Your task to perform on an android device: Show the shopping cart on target. Add "logitech g903" to the cart on target, then select checkout. Image 0: 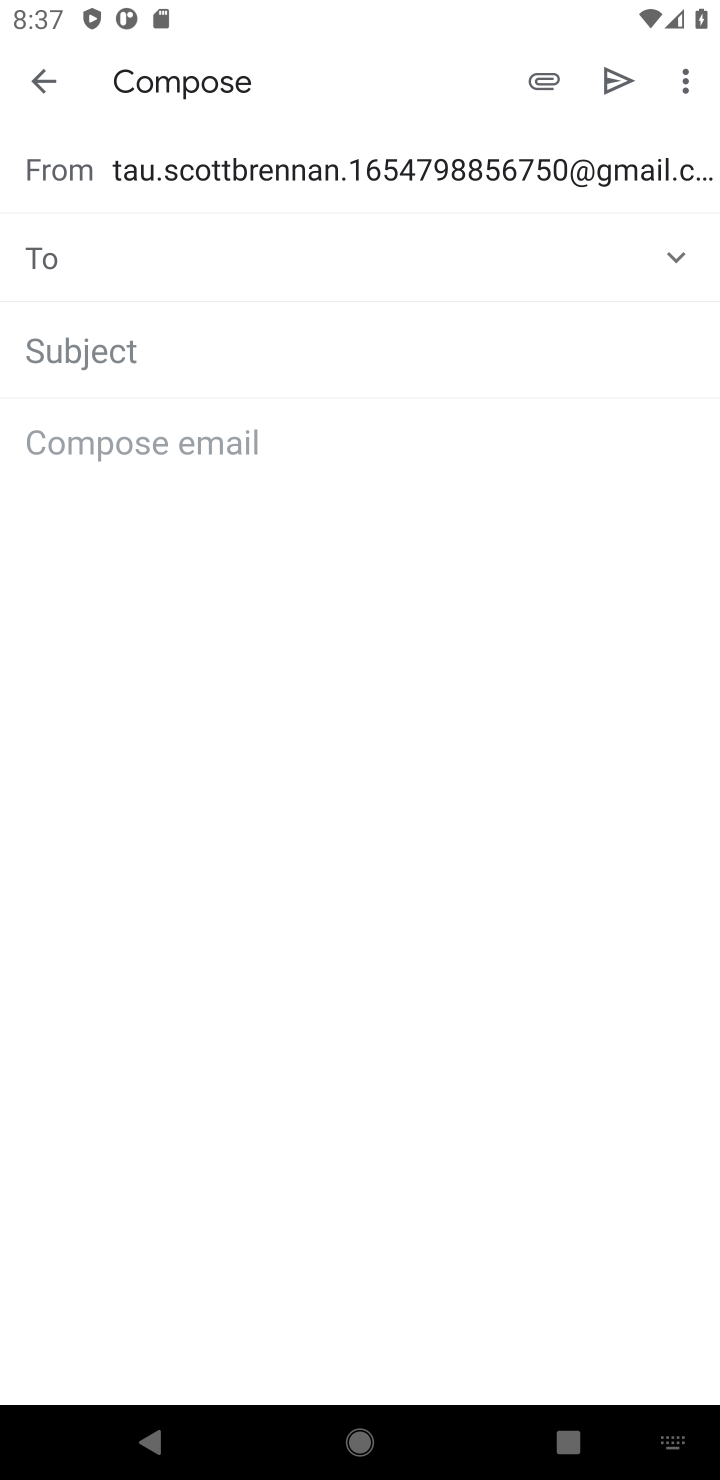
Step 0: press home button
Your task to perform on an android device: Show the shopping cart on target. Add "logitech g903" to the cart on target, then select checkout. Image 1: 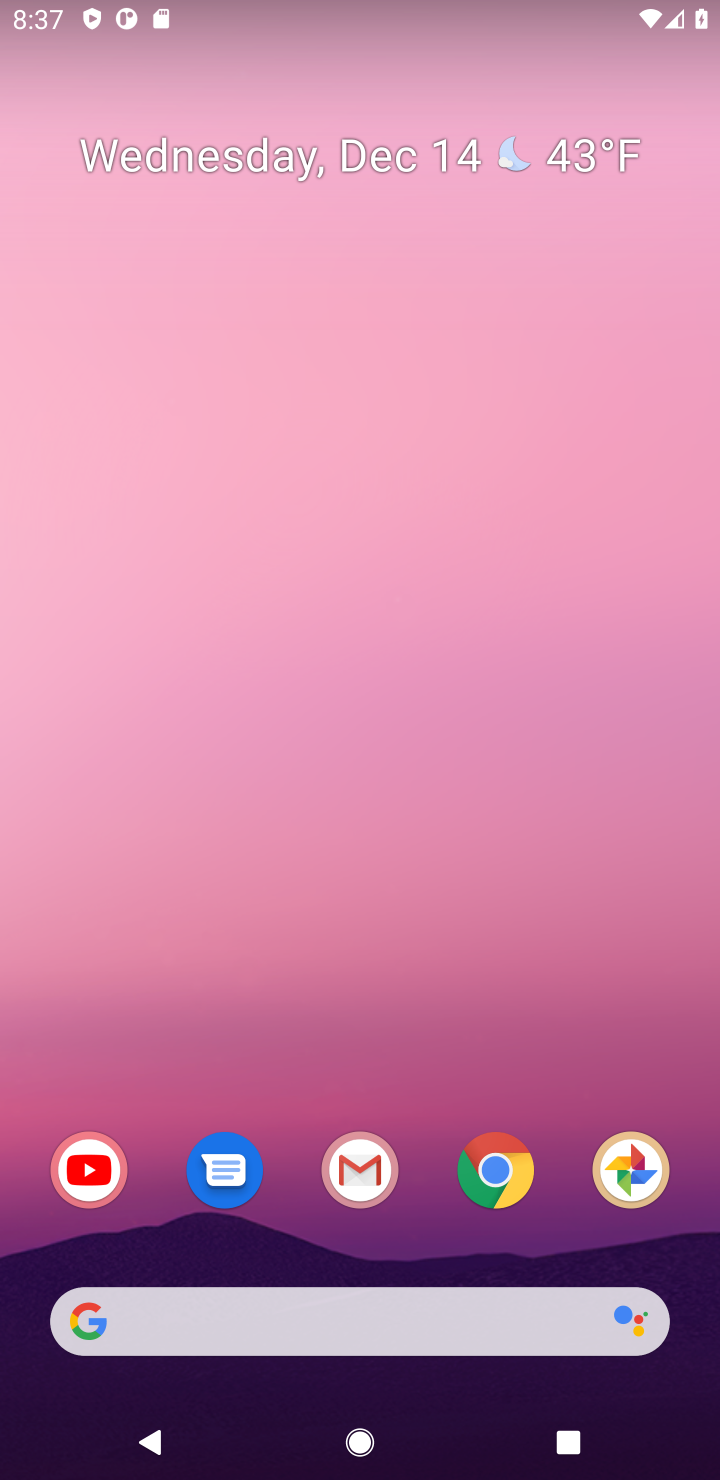
Step 1: click (503, 1168)
Your task to perform on an android device: Show the shopping cart on target. Add "logitech g903" to the cart on target, then select checkout. Image 2: 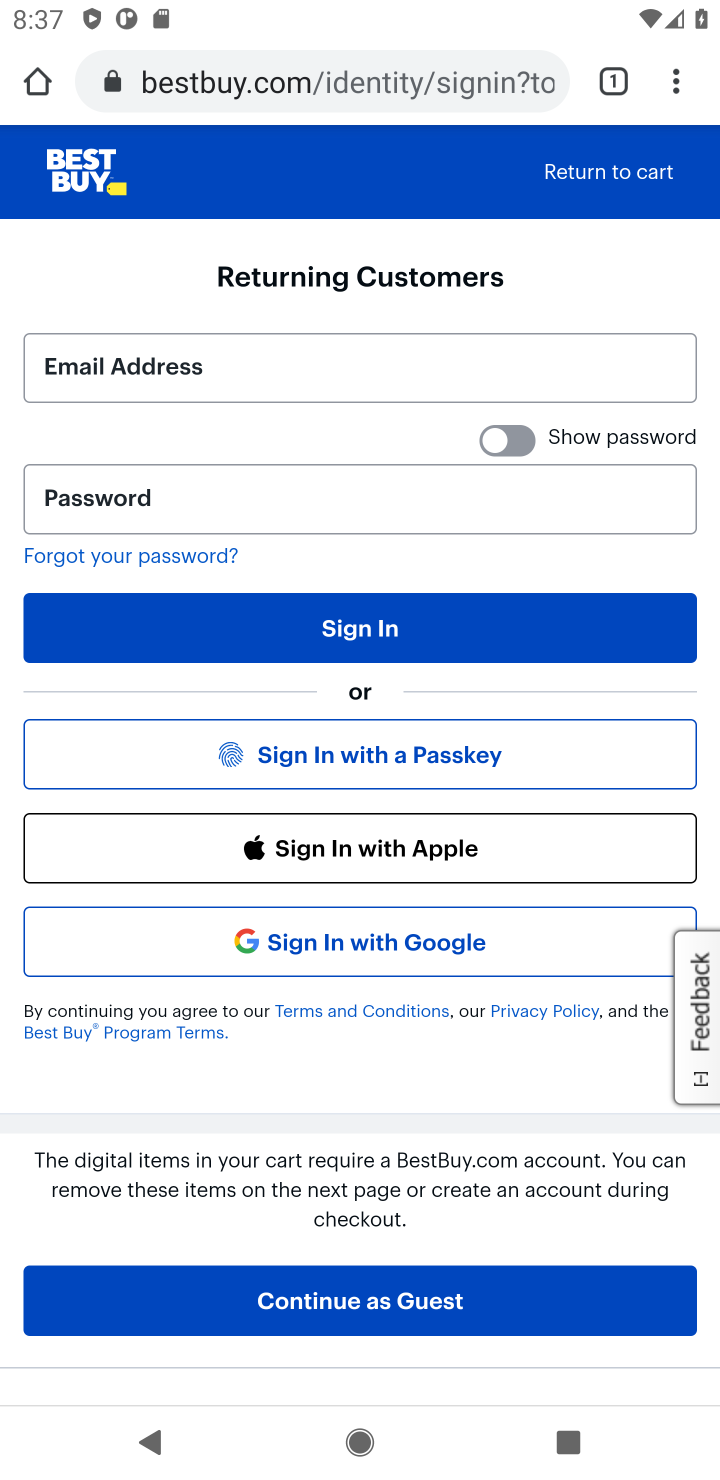
Step 2: click (308, 71)
Your task to perform on an android device: Show the shopping cart on target. Add "logitech g903" to the cart on target, then select checkout. Image 3: 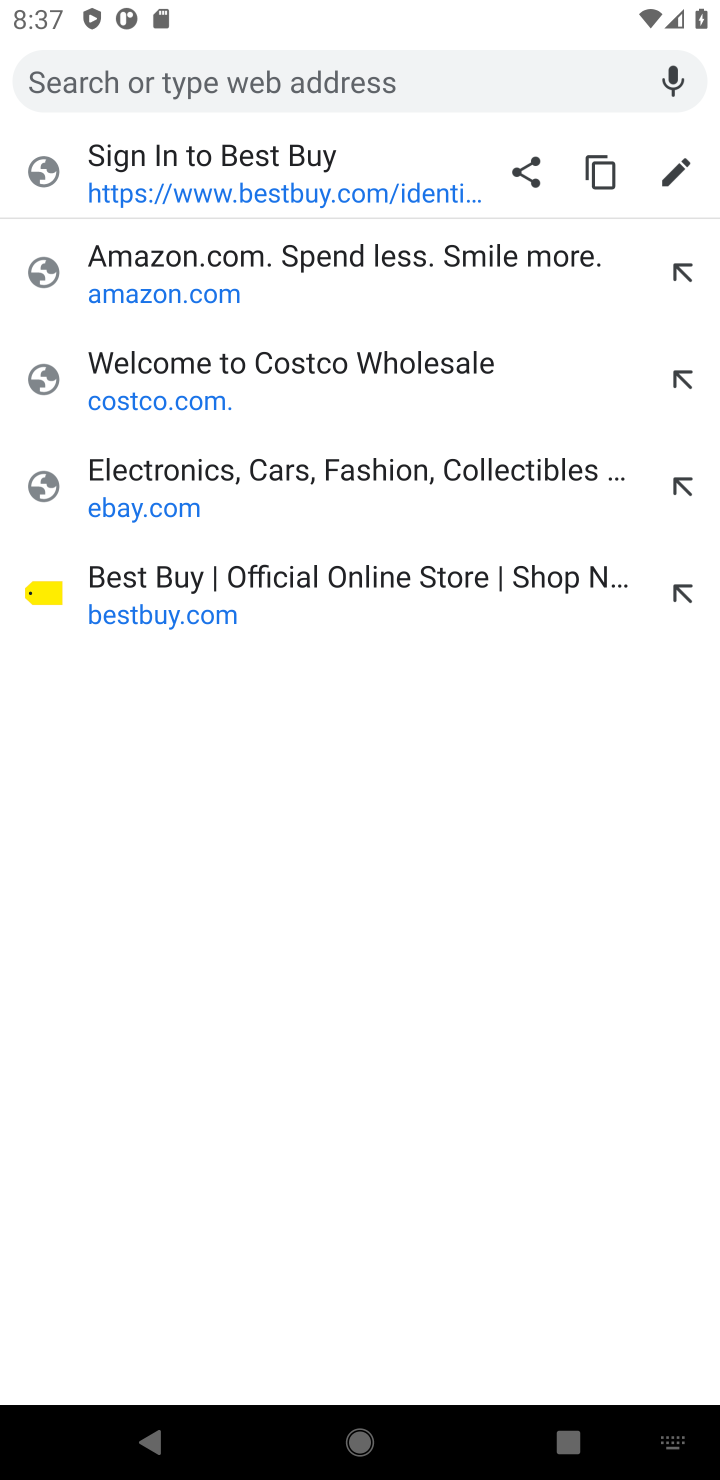
Step 3: type "TARGET"
Your task to perform on an android device: Show the shopping cart on target. Add "logitech g903" to the cart on target, then select checkout. Image 4: 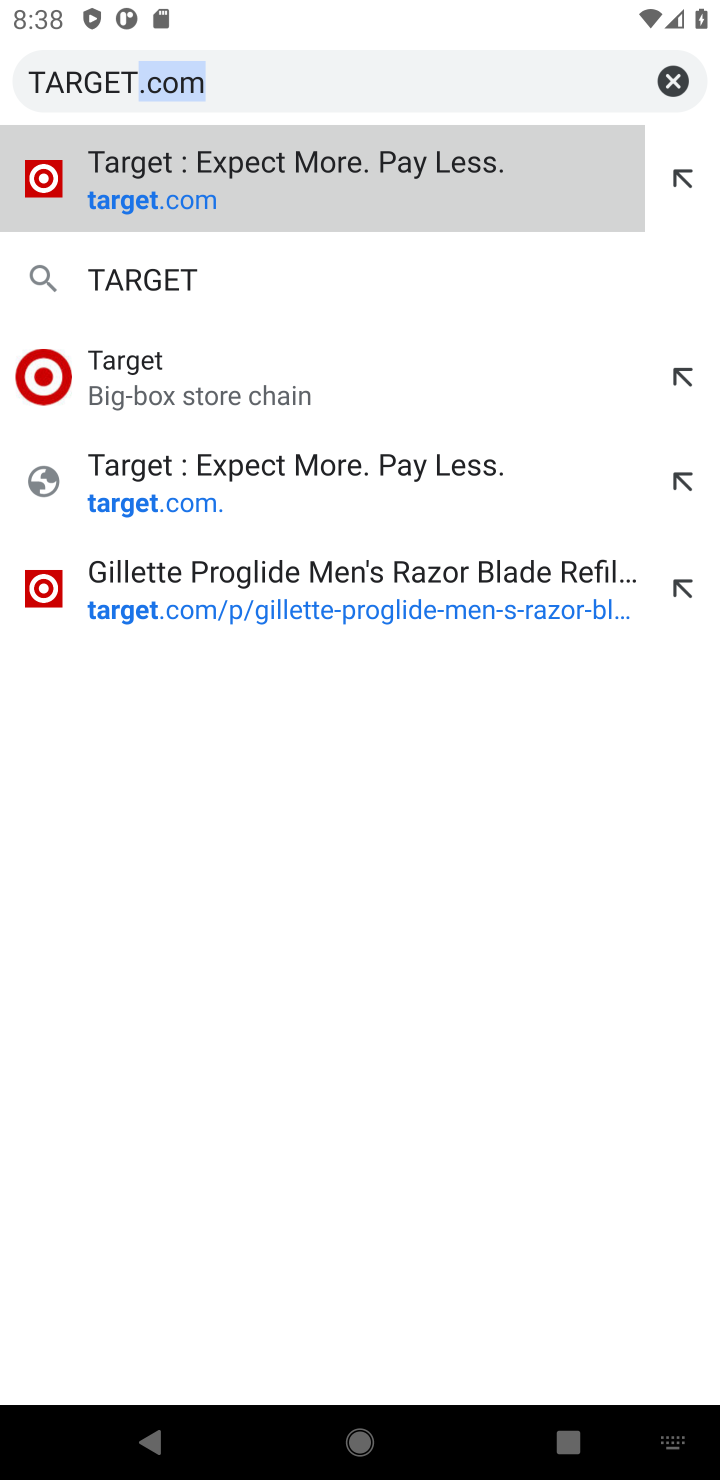
Step 4: click (358, 178)
Your task to perform on an android device: Show the shopping cart on target. Add "logitech g903" to the cart on target, then select checkout. Image 5: 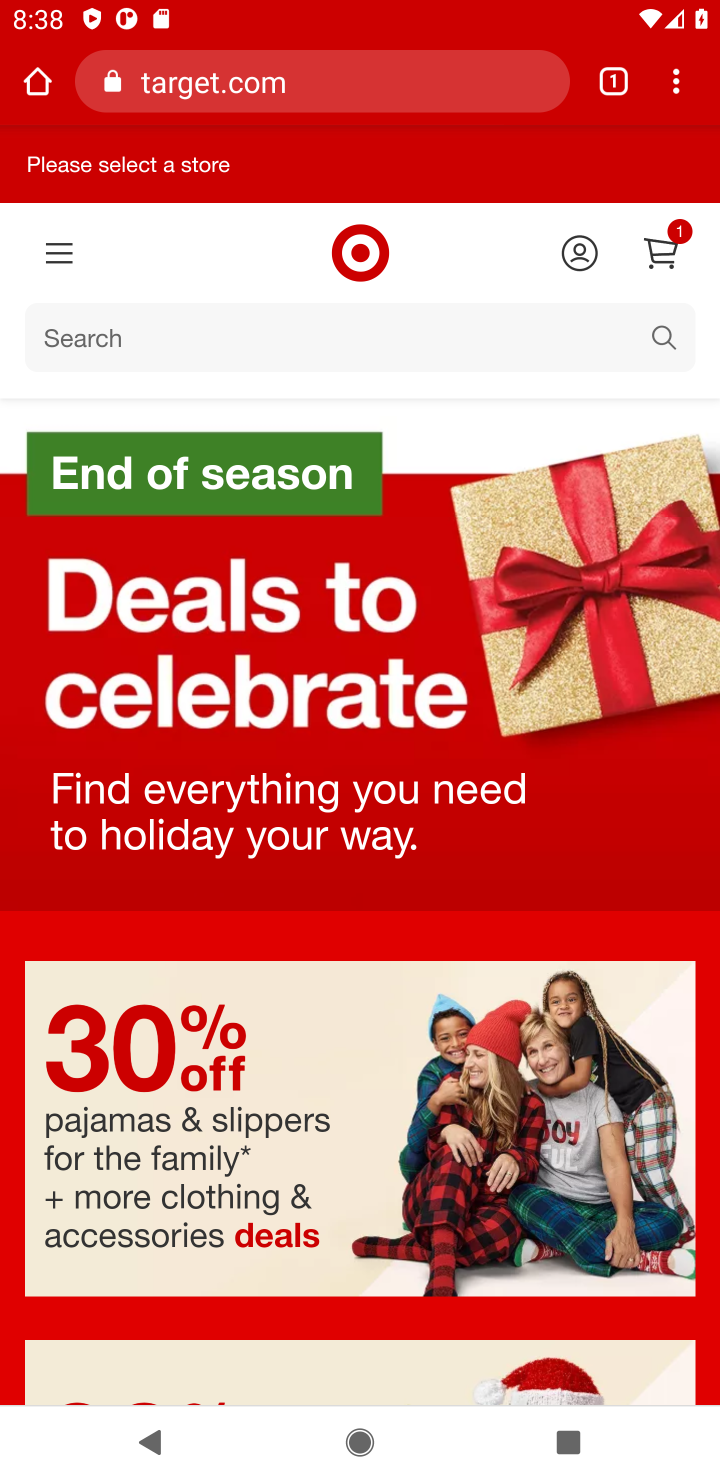
Step 5: click (429, 327)
Your task to perform on an android device: Show the shopping cart on target. Add "logitech g903" to the cart on target, then select checkout. Image 6: 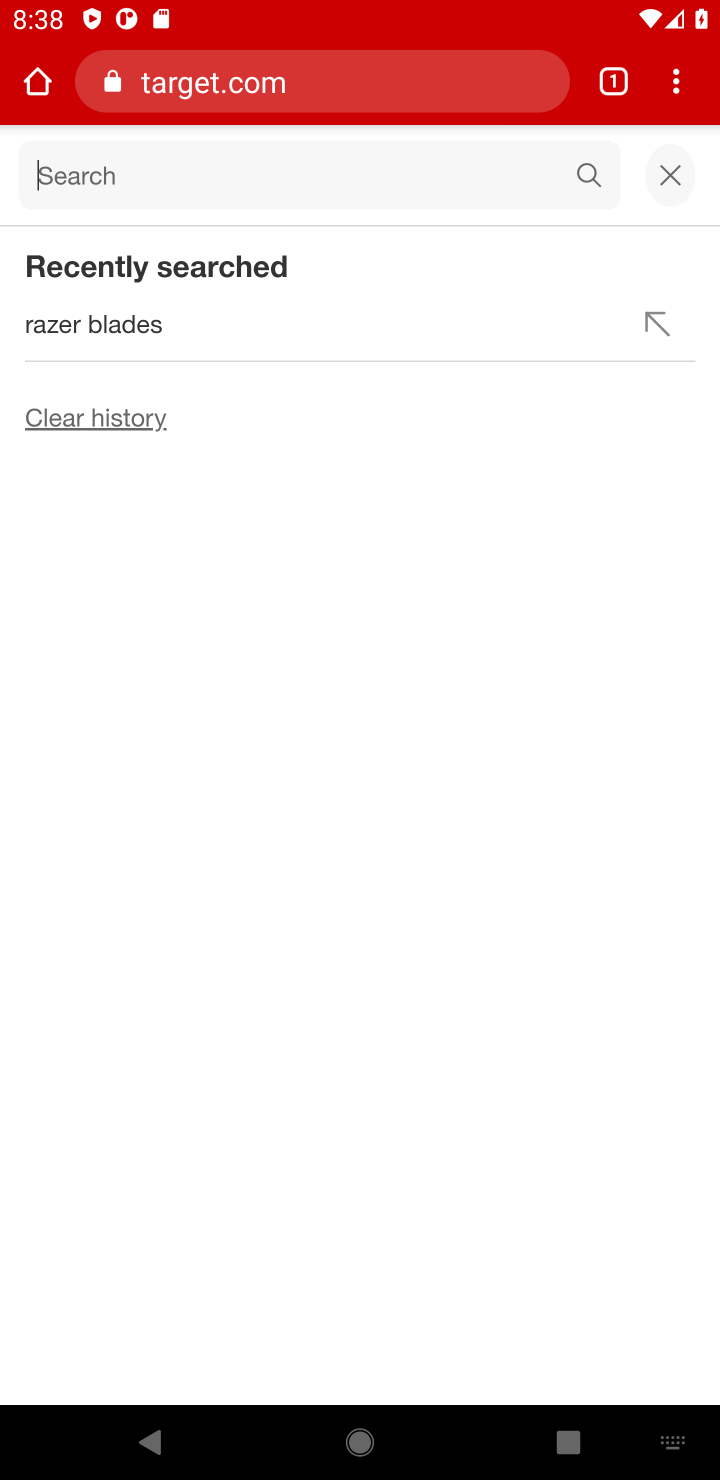
Step 6: type "LOGITECH G903"
Your task to perform on an android device: Show the shopping cart on target. Add "logitech g903" to the cart on target, then select checkout. Image 7: 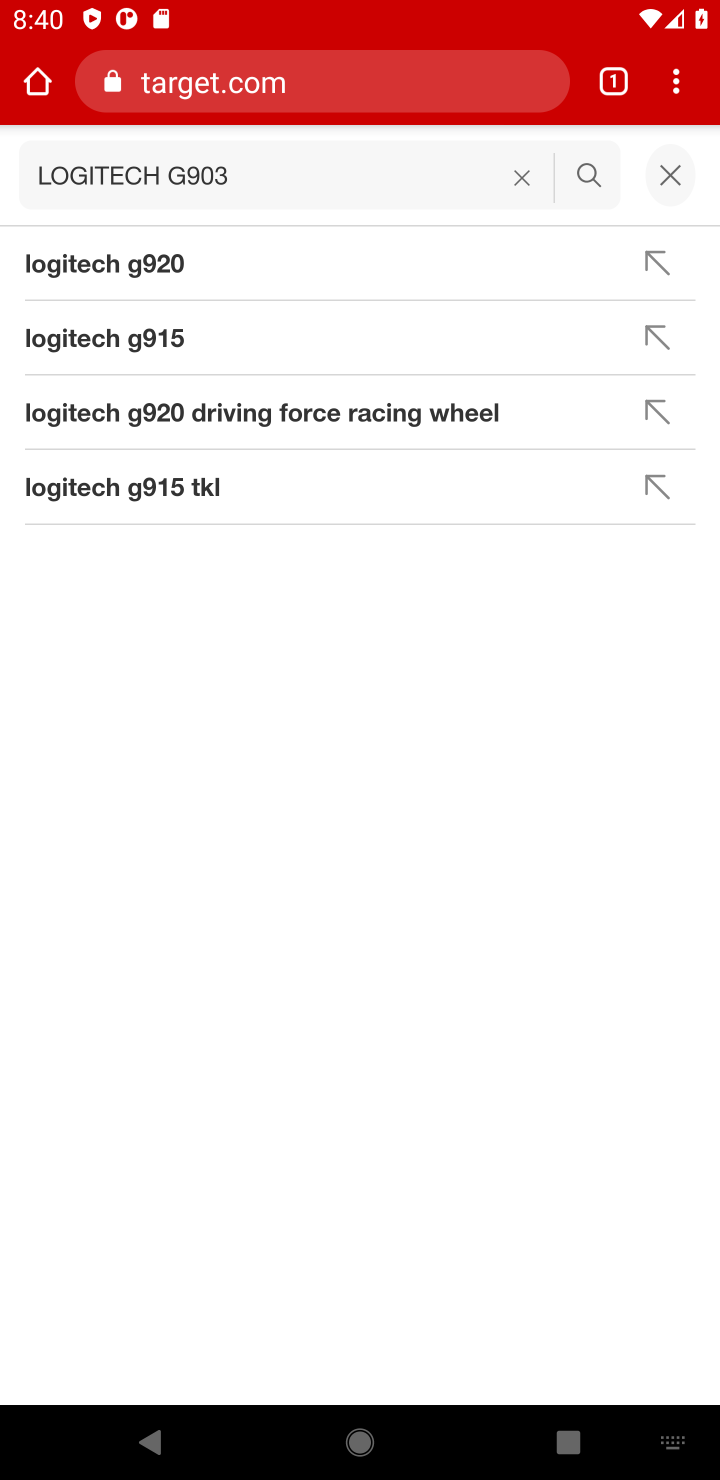
Step 7: click (91, 270)
Your task to perform on an android device: Show the shopping cart on target. Add "logitech g903" to the cart on target, then select checkout. Image 8: 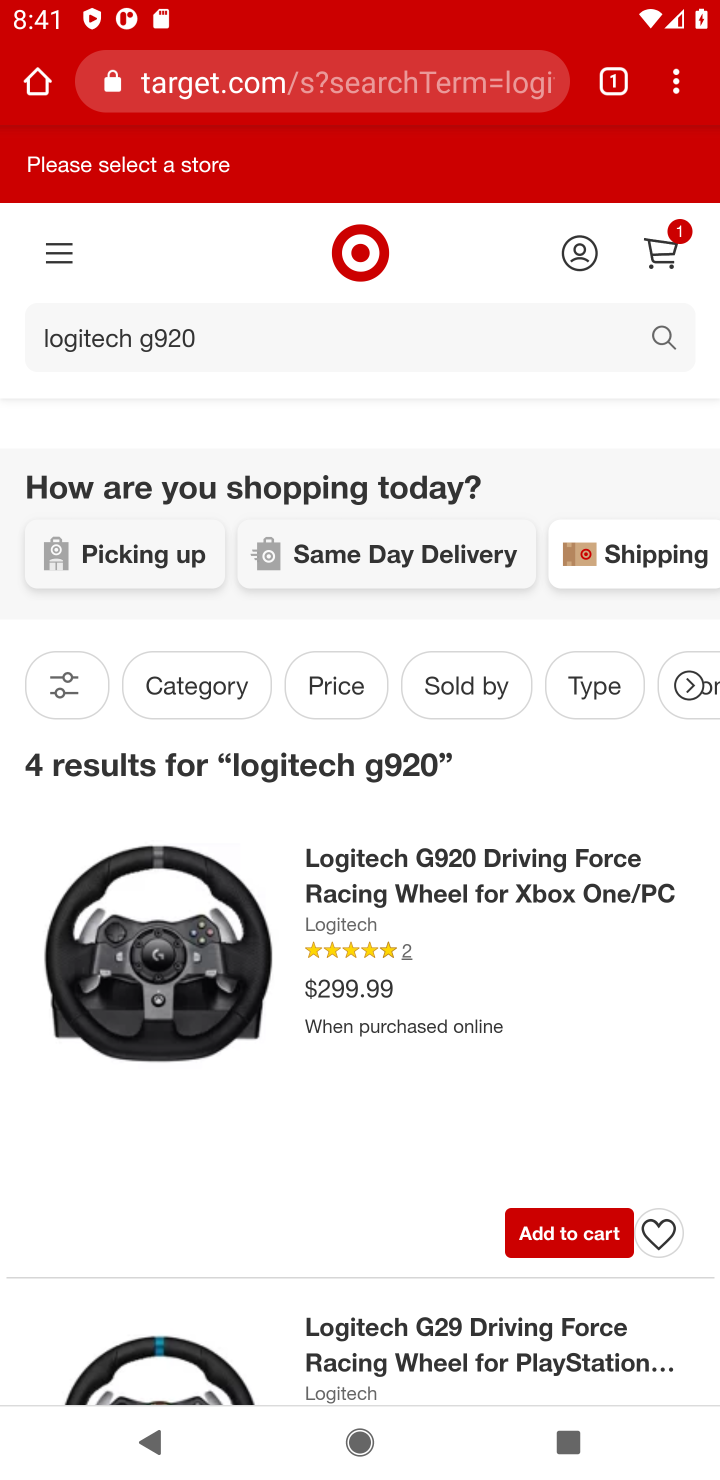
Step 8: click (550, 1228)
Your task to perform on an android device: Show the shopping cart on target. Add "logitech g903" to the cart on target, then select checkout. Image 9: 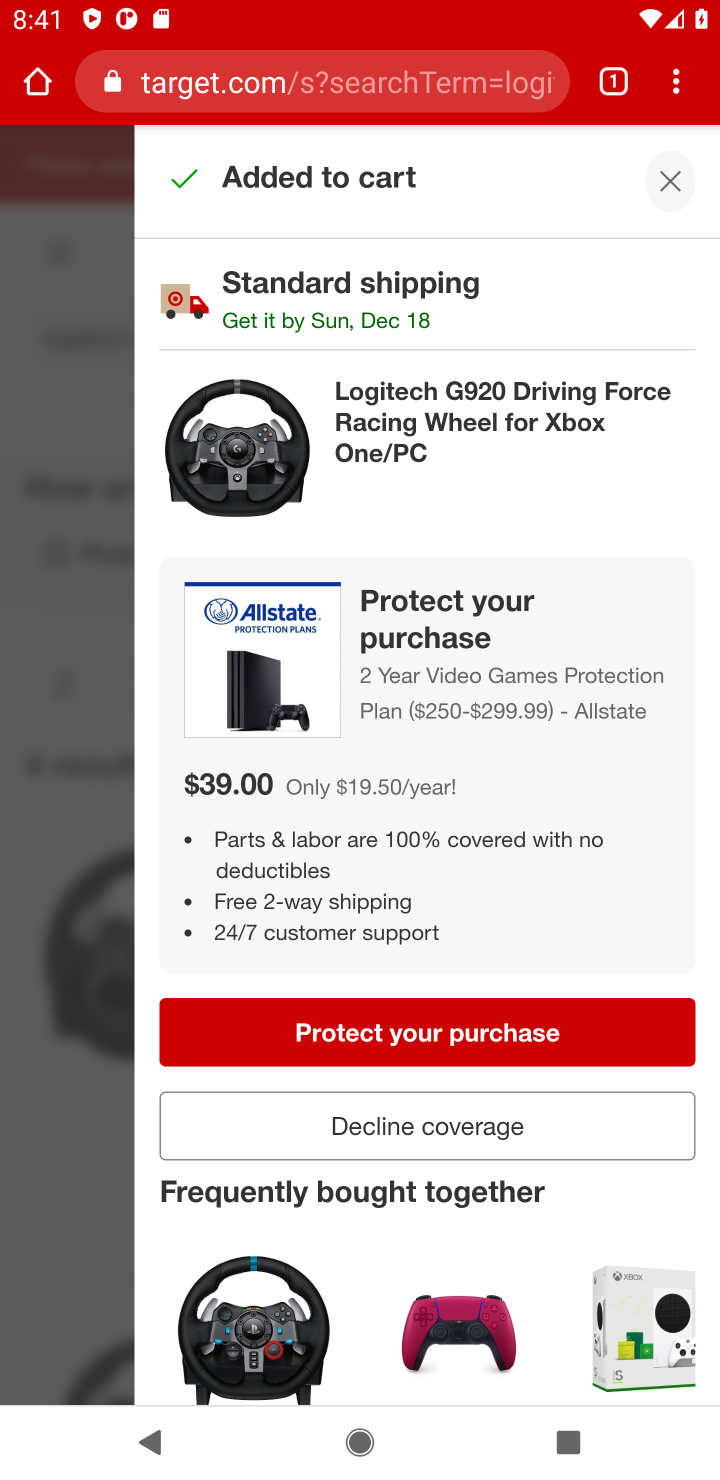
Step 9: click (429, 1135)
Your task to perform on an android device: Show the shopping cart on target. Add "logitech g903" to the cart on target, then select checkout. Image 10: 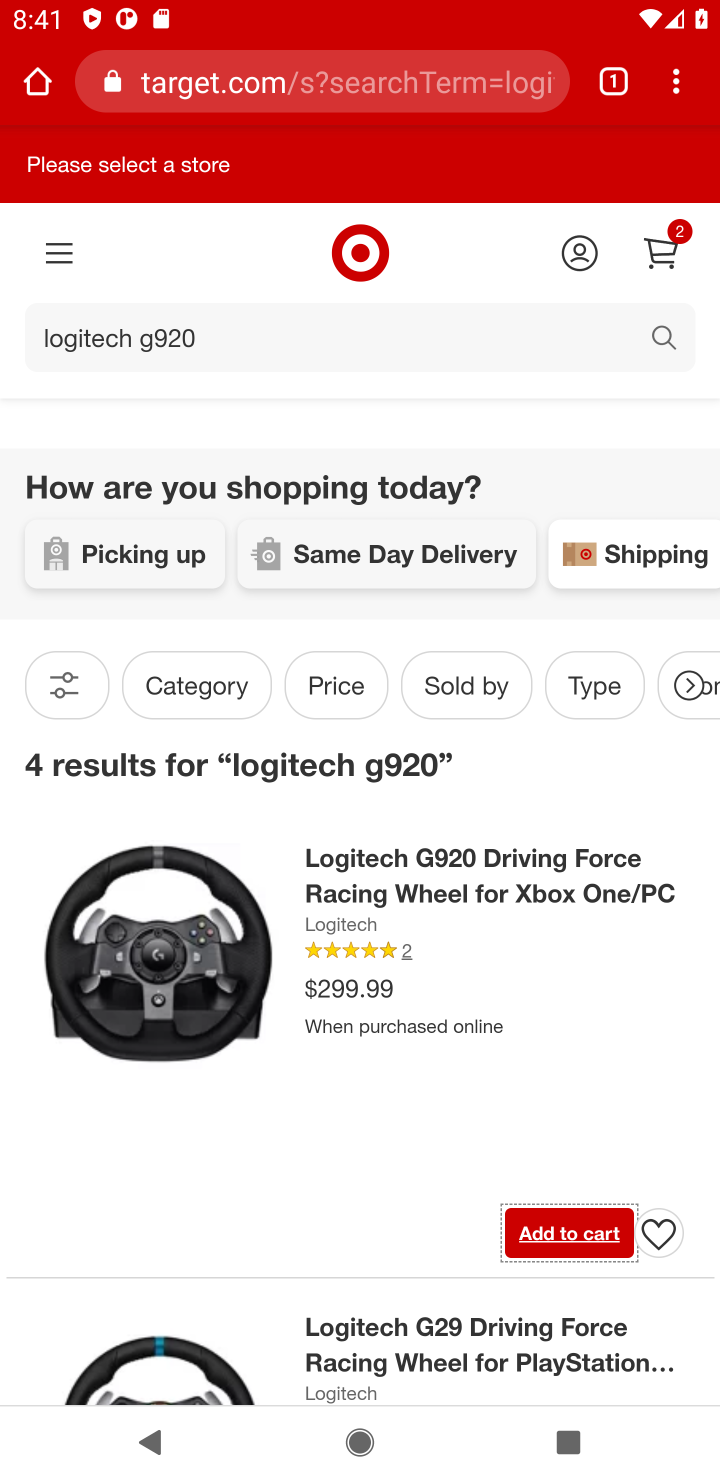
Step 10: click (665, 246)
Your task to perform on an android device: Show the shopping cart on target. Add "logitech g903" to the cart on target, then select checkout. Image 11: 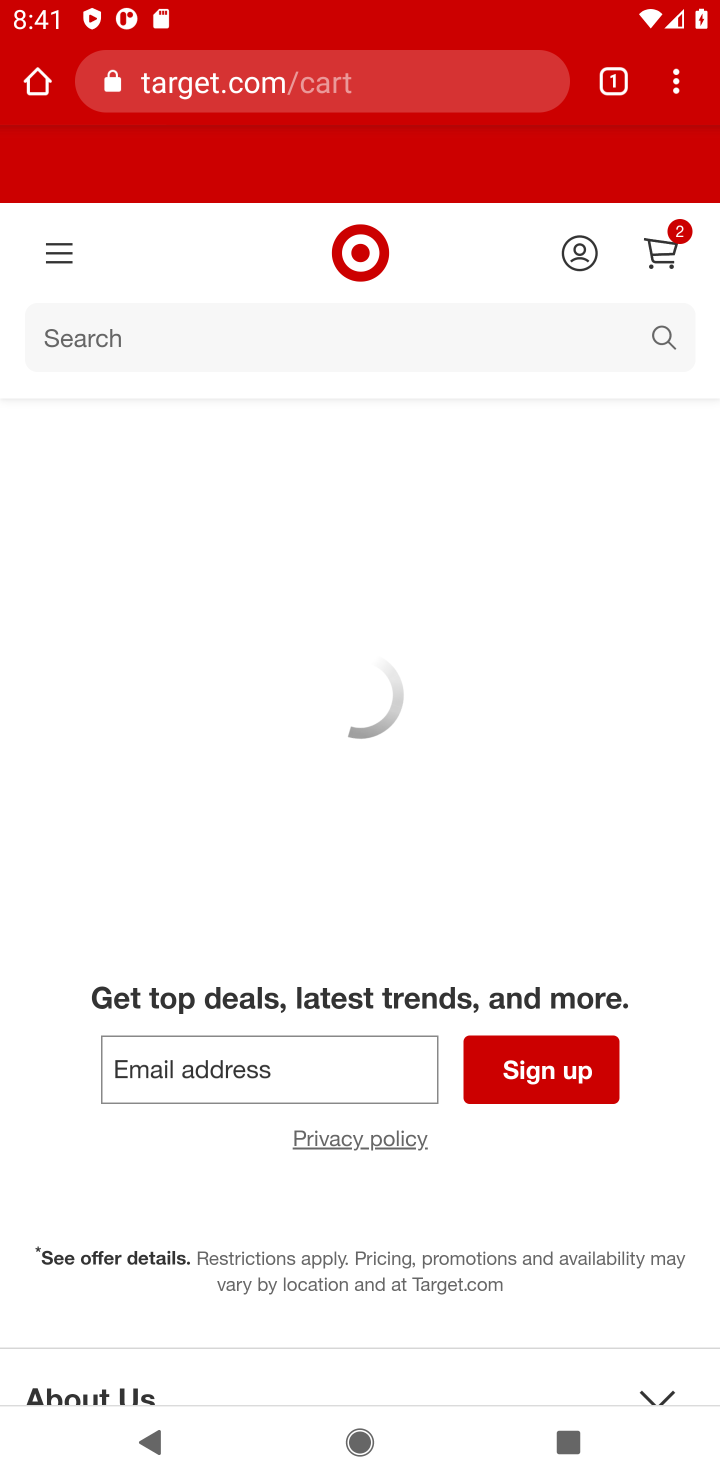
Step 11: task complete